Your task to perform on an android device: check out phone information Image 0: 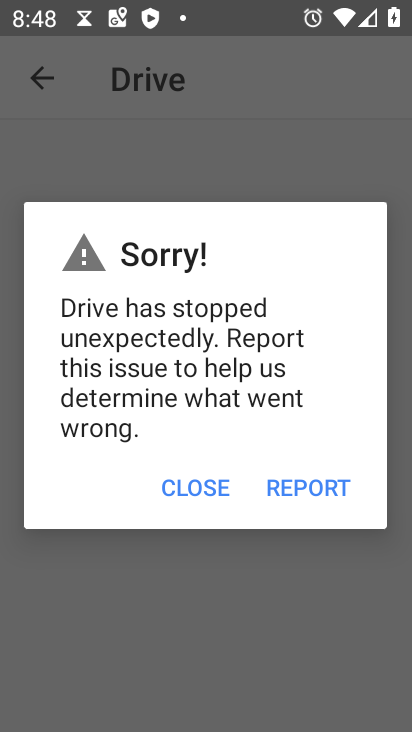
Step 0: click (195, 490)
Your task to perform on an android device: check out phone information Image 1: 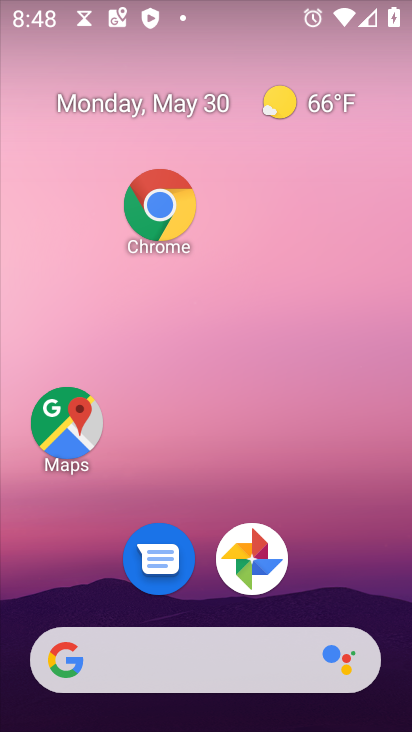
Step 1: drag from (253, 673) to (221, 186)
Your task to perform on an android device: check out phone information Image 2: 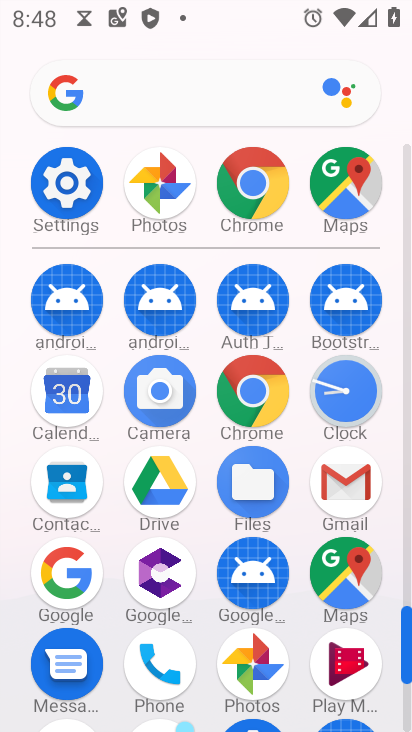
Step 2: drag from (225, 559) to (192, 176)
Your task to perform on an android device: check out phone information Image 3: 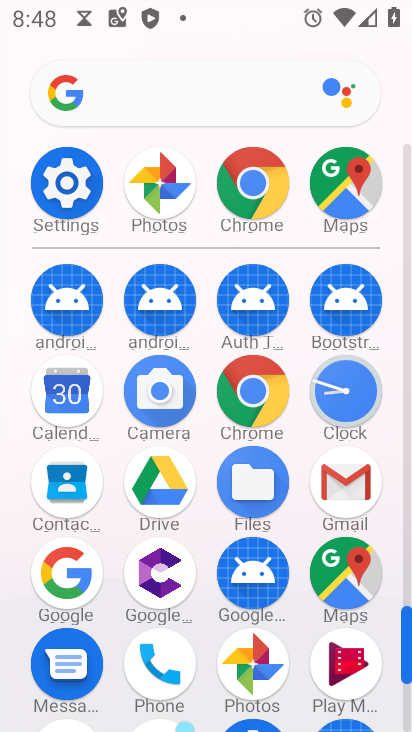
Step 3: press back button
Your task to perform on an android device: check out phone information Image 4: 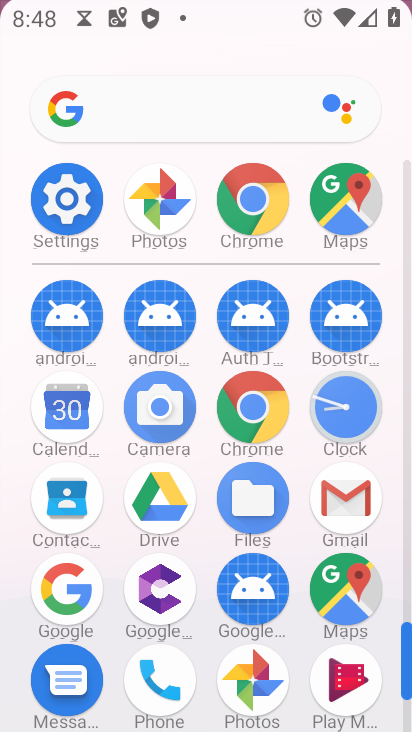
Step 4: press back button
Your task to perform on an android device: check out phone information Image 5: 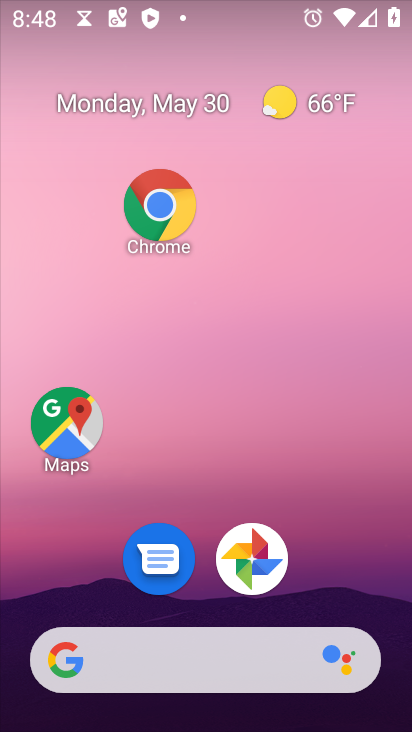
Step 5: press back button
Your task to perform on an android device: check out phone information Image 6: 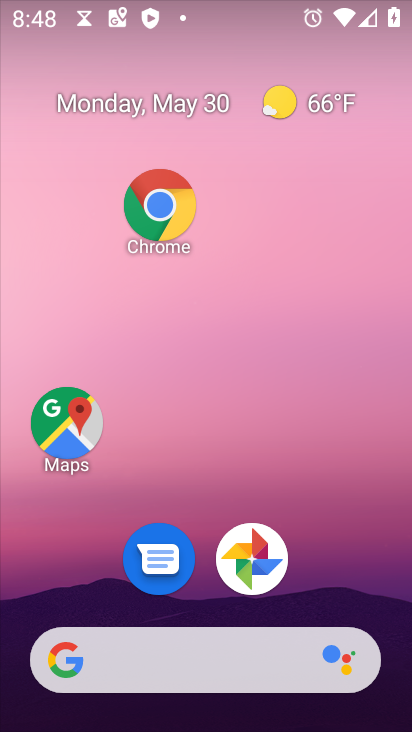
Step 6: drag from (296, 654) to (326, 28)
Your task to perform on an android device: check out phone information Image 7: 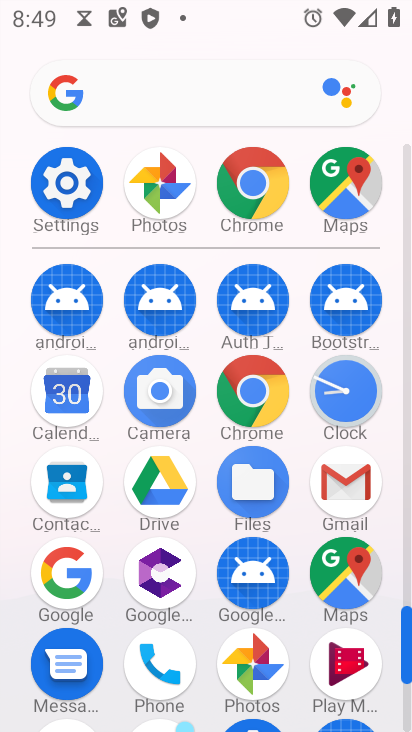
Step 7: click (57, 173)
Your task to perform on an android device: check out phone information Image 8: 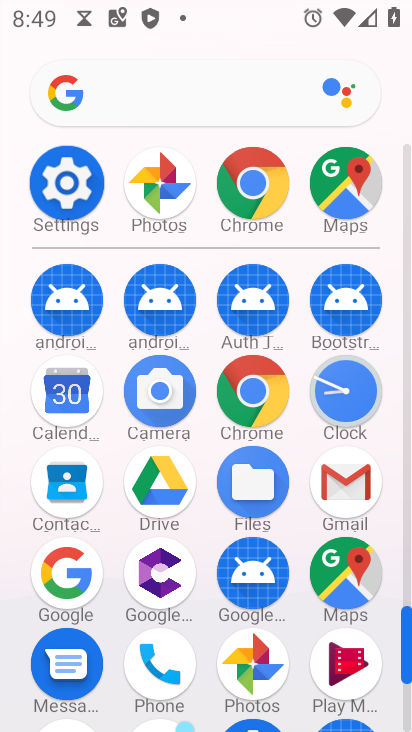
Step 8: click (62, 174)
Your task to perform on an android device: check out phone information Image 9: 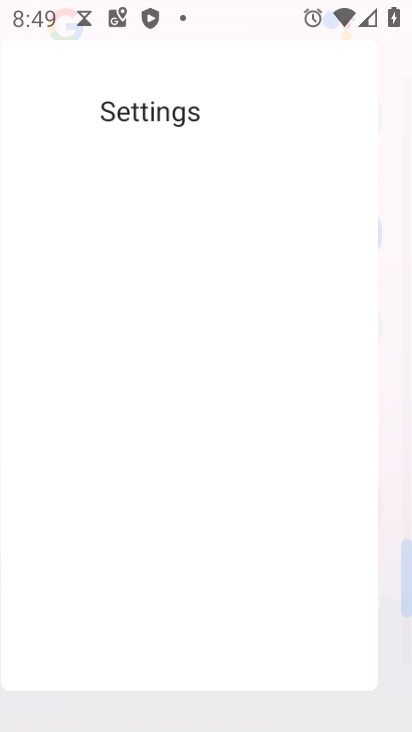
Step 9: click (65, 174)
Your task to perform on an android device: check out phone information Image 10: 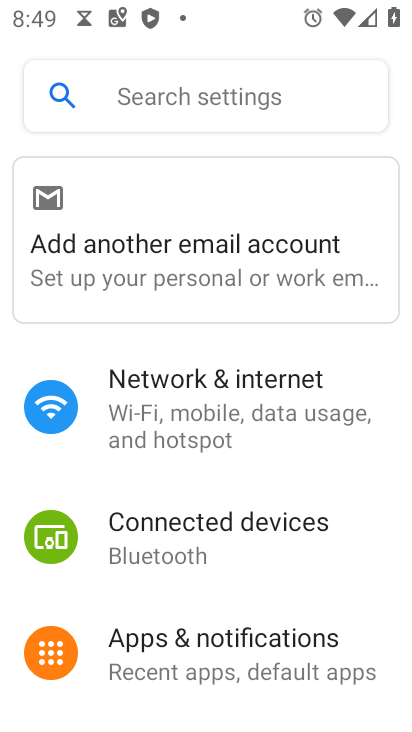
Step 10: drag from (266, 443) to (260, 193)
Your task to perform on an android device: check out phone information Image 11: 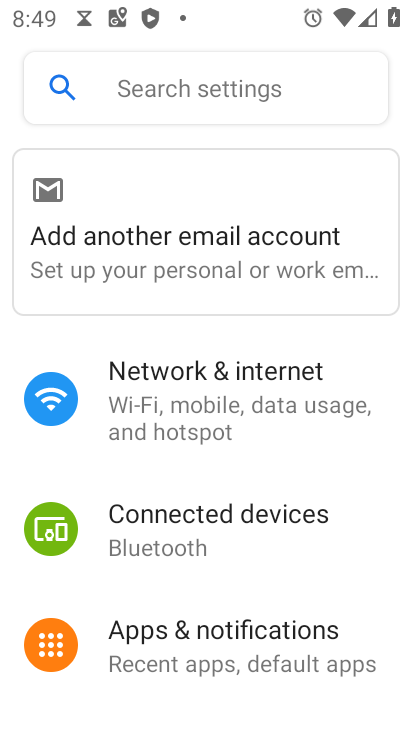
Step 11: drag from (287, 554) to (233, 199)
Your task to perform on an android device: check out phone information Image 12: 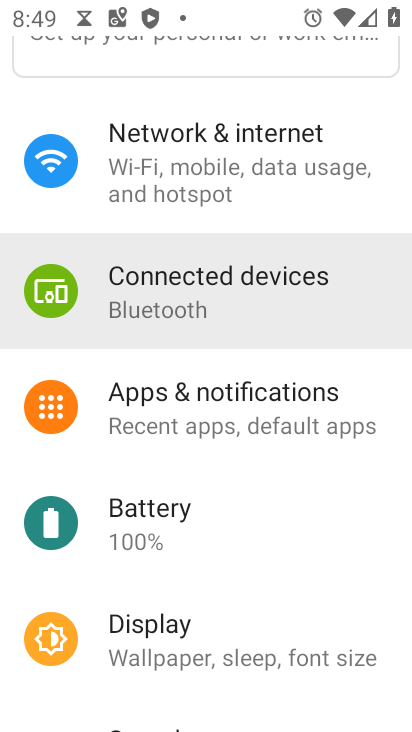
Step 12: drag from (246, 471) to (242, 209)
Your task to perform on an android device: check out phone information Image 13: 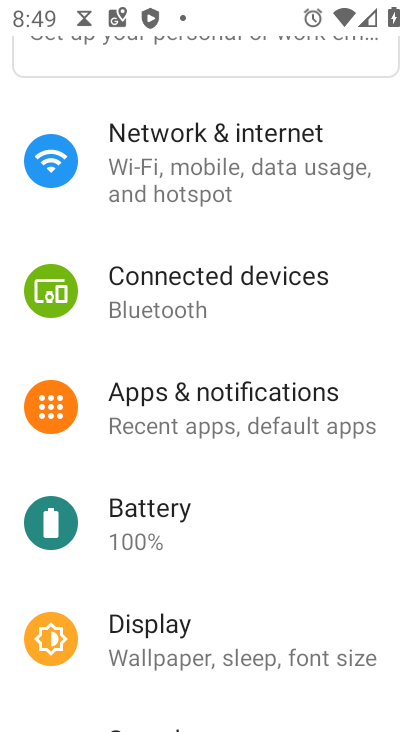
Step 13: drag from (212, 375) to (212, 247)
Your task to perform on an android device: check out phone information Image 14: 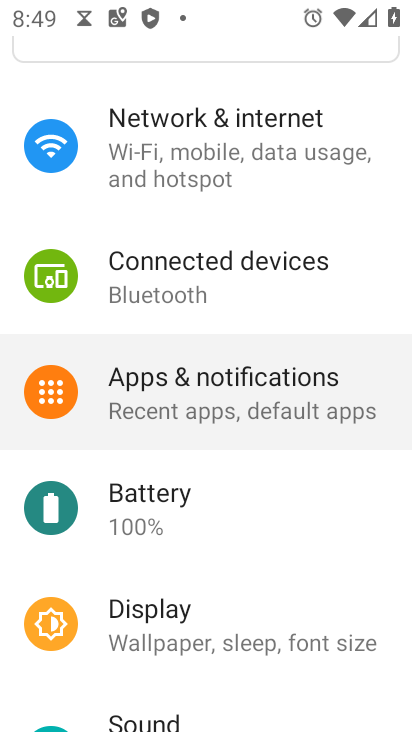
Step 14: drag from (224, 517) to (235, 132)
Your task to perform on an android device: check out phone information Image 15: 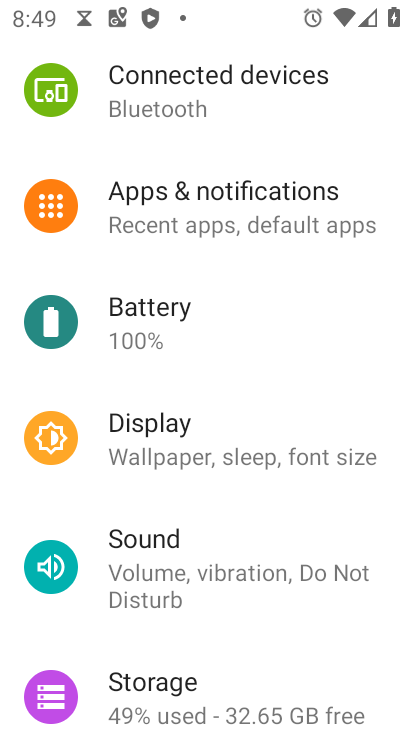
Step 15: drag from (255, 477) to (284, 202)
Your task to perform on an android device: check out phone information Image 16: 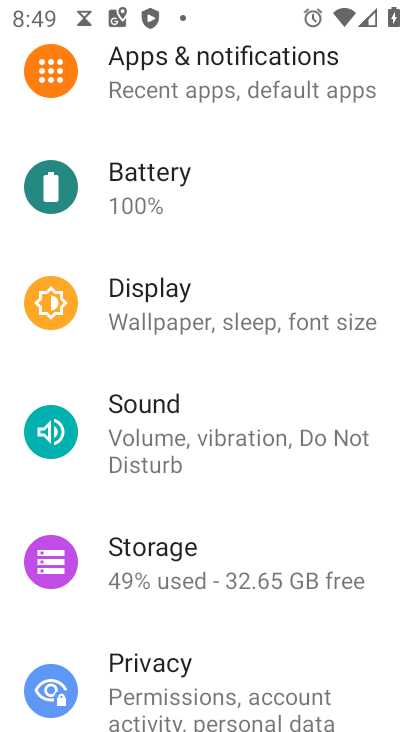
Step 16: drag from (279, 508) to (265, 250)
Your task to perform on an android device: check out phone information Image 17: 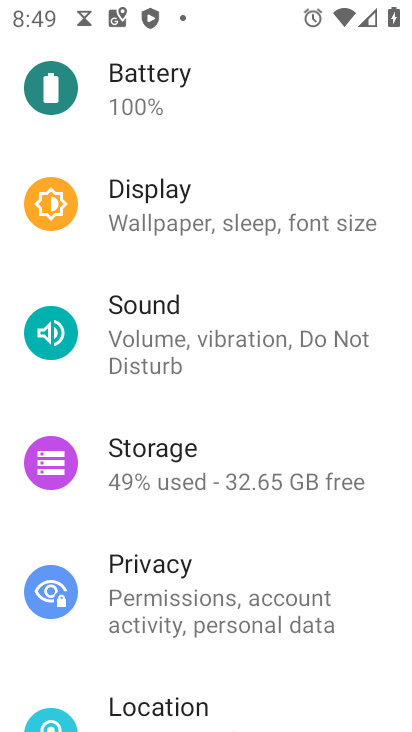
Step 17: drag from (211, 636) to (198, 136)
Your task to perform on an android device: check out phone information Image 18: 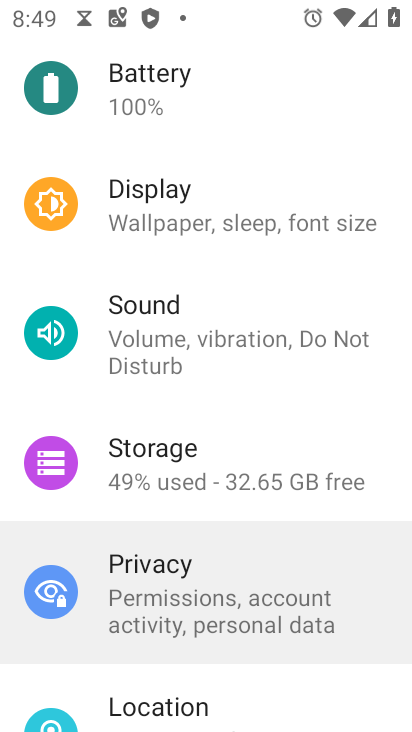
Step 18: drag from (249, 132) to (249, 50)
Your task to perform on an android device: check out phone information Image 19: 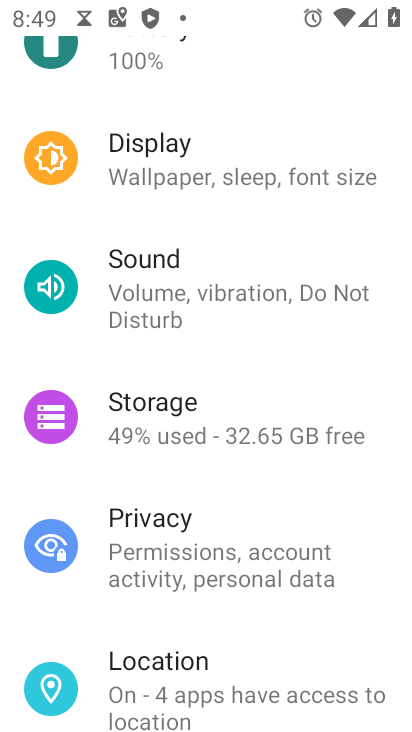
Step 19: drag from (241, 377) to (263, 2)
Your task to perform on an android device: check out phone information Image 20: 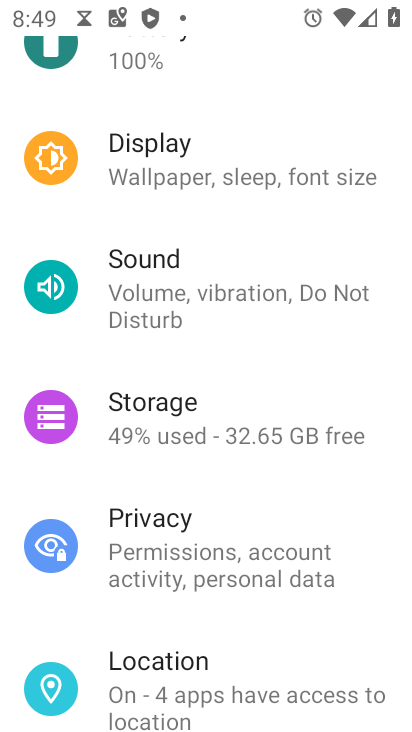
Step 20: drag from (256, 415) to (256, 80)
Your task to perform on an android device: check out phone information Image 21: 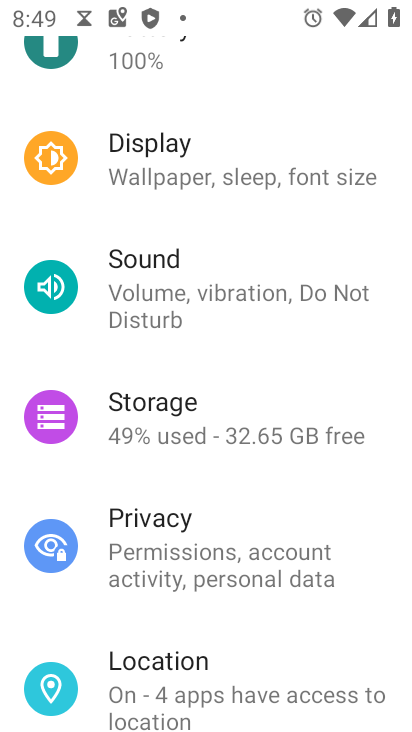
Step 21: drag from (268, 302) to (270, 104)
Your task to perform on an android device: check out phone information Image 22: 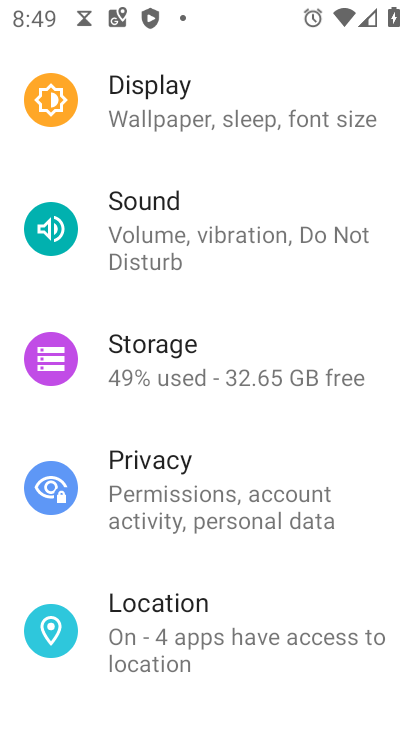
Step 22: drag from (199, 555) to (199, 284)
Your task to perform on an android device: check out phone information Image 23: 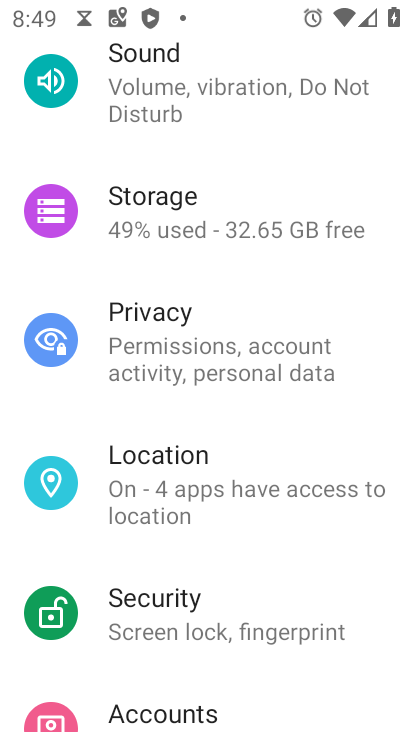
Step 23: drag from (213, 538) to (255, 180)
Your task to perform on an android device: check out phone information Image 24: 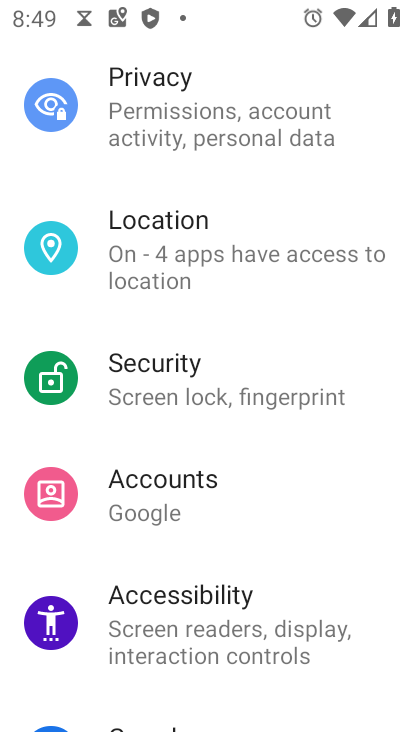
Step 24: drag from (264, 454) to (253, 140)
Your task to perform on an android device: check out phone information Image 25: 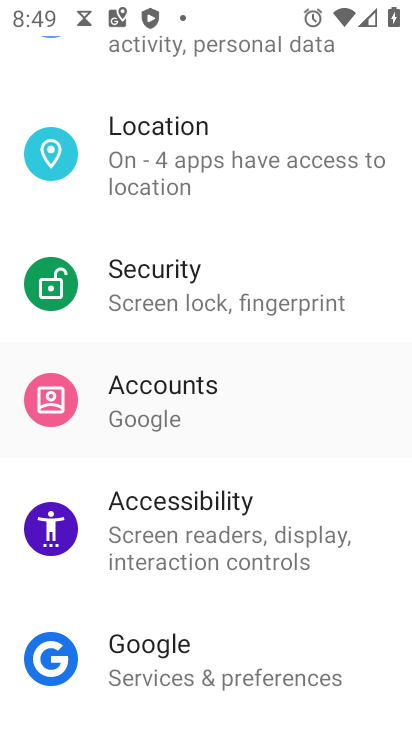
Step 25: drag from (241, 378) to (248, 87)
Your task to perform on an android device: check out phone information Image 26: 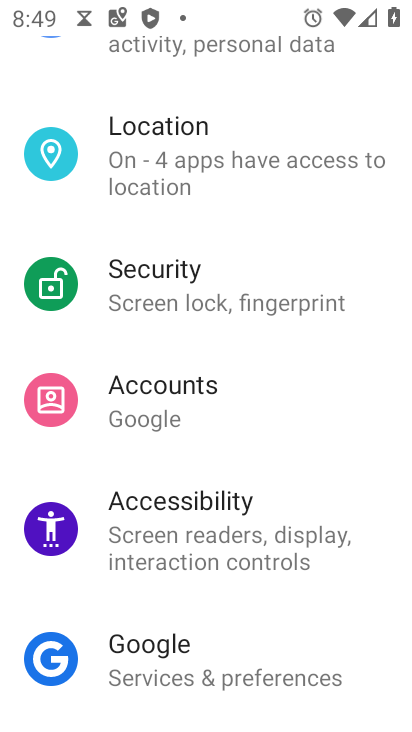
Step 26: drag from (249, 495) to (281, 110)
Your task to perform on an android device: check out phone information Image 27: 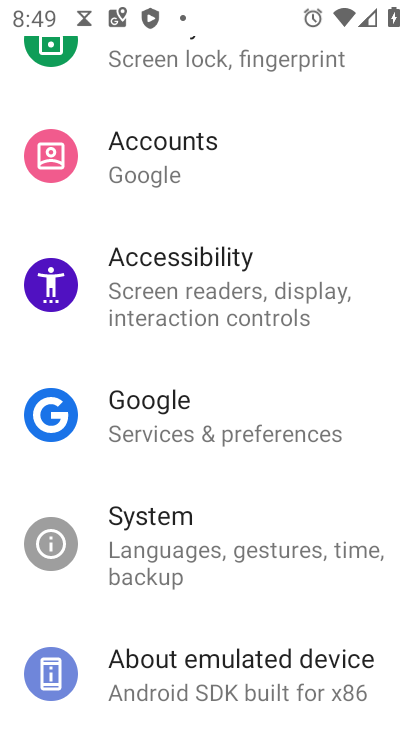
Step 27: click (199, 677)
Your task to perform on an android device: check out phone information Image 28: 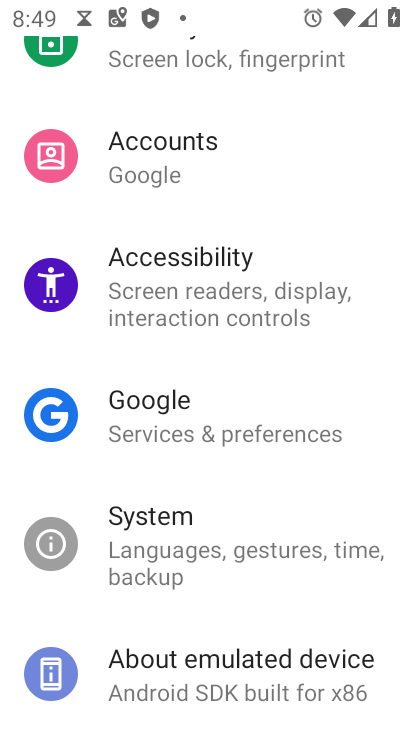
Step 28: click (199, 676)
Your task to perform on an android device: check out phone information Image 29: 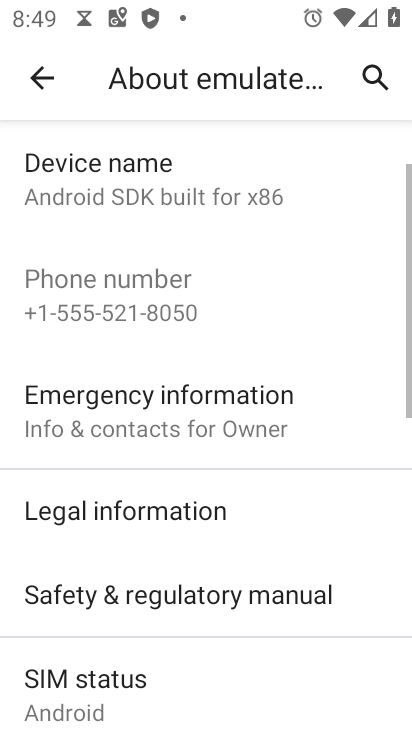
Step 29: task complete